Your task to perform on an android device: What's the weather? Image 0: 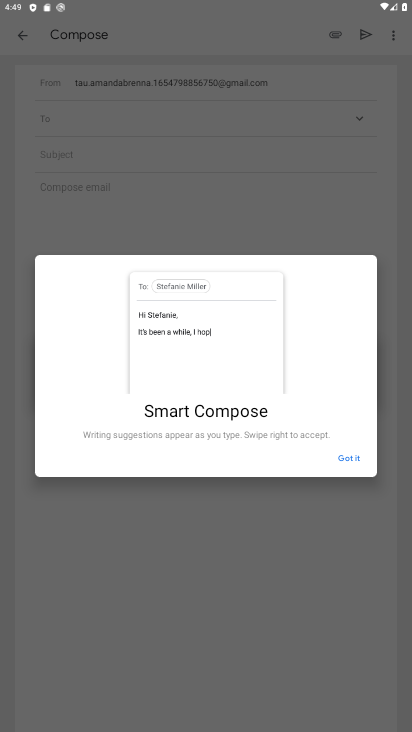
Step 0: press home button
Your task to perform on an android device: What's the weather? Image 1: 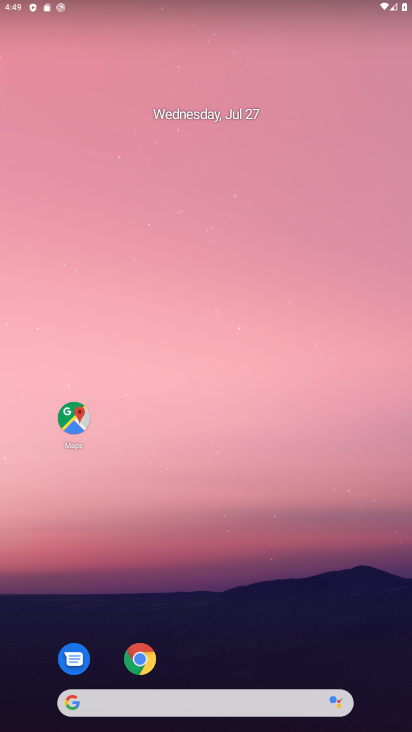
Step 1: click (141, 654)
Your task to perform on an android device: What's the weather? Image 2: 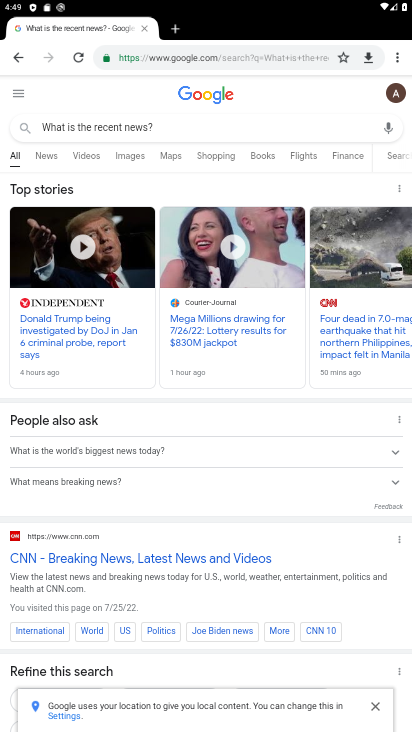
Step 2: click (170, 126)
Your task to perform on an android device: What's the weather? Image 3: 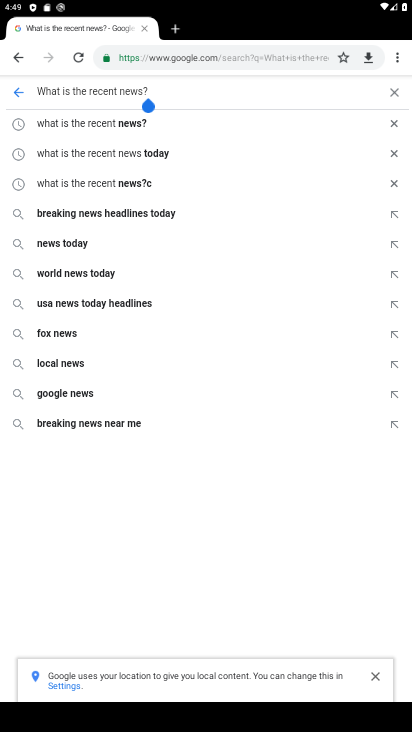
Step 3: click (211, 53)
Your task to perform on an android device: What's the weather? Image 4: 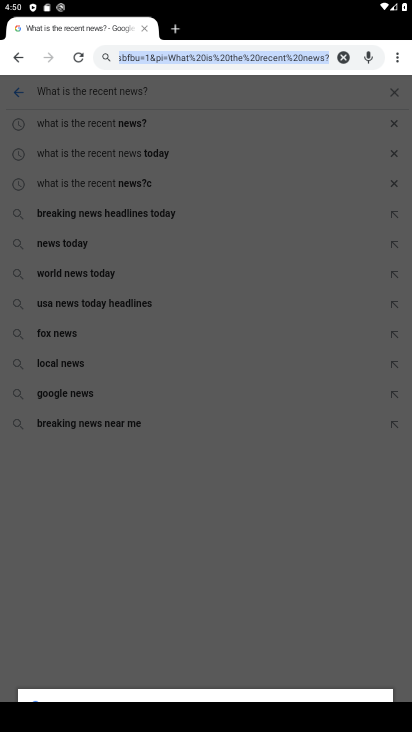
Step 4: type "What's the weather?"
Your task to perform on an android device: What's the weather? Image 5: 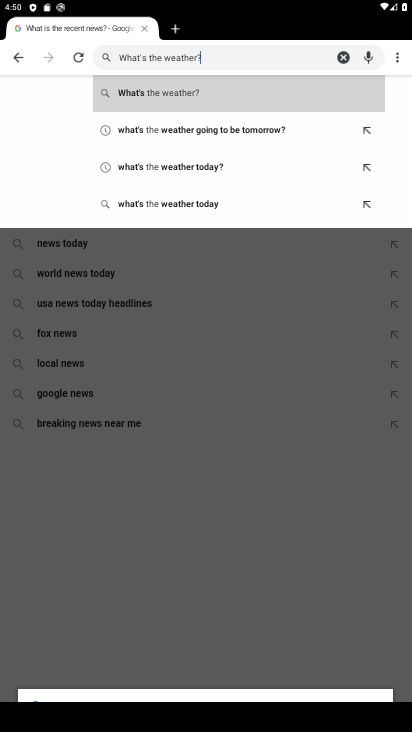
Step 5: click (174, 87)
Your task to perform on an android device: What's the weather? Image 6: 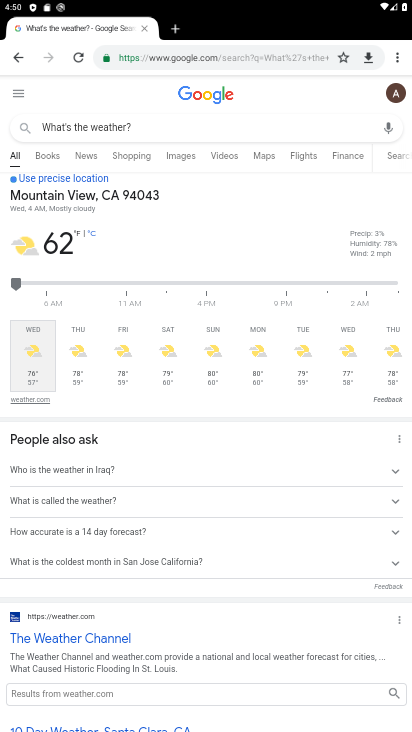
Step 6: task complete